Your task to perform on an android device: turn on javascript in the chrome app Image 0: 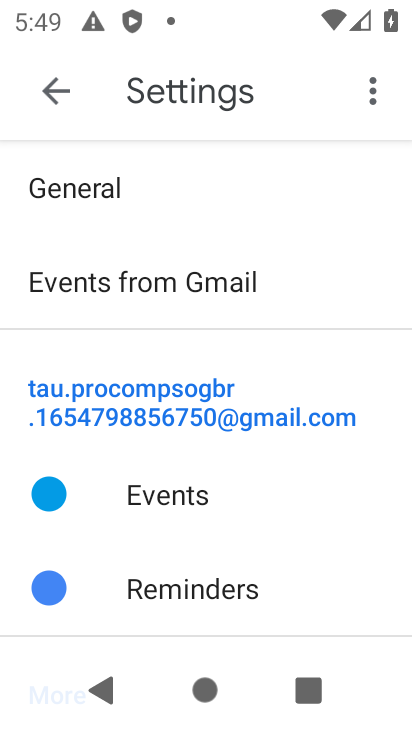
Step 0: press home button
Your task to perform on an android device: turn on javascript in the chrome app Image 1: 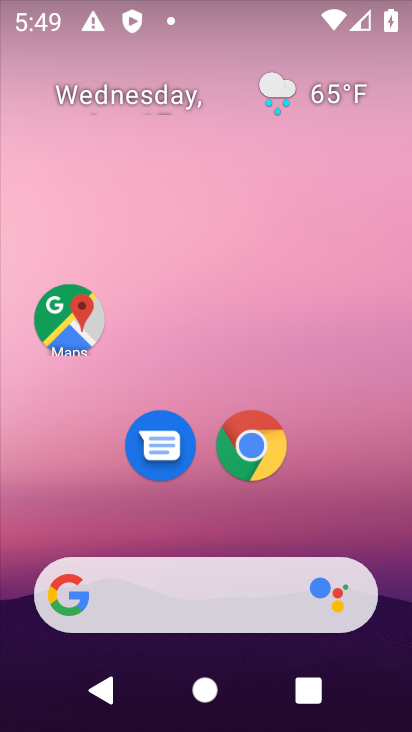
Step 1: click (240, 432)
Your task to perform on an android device: turn on javascript in the chrome app Image 2: 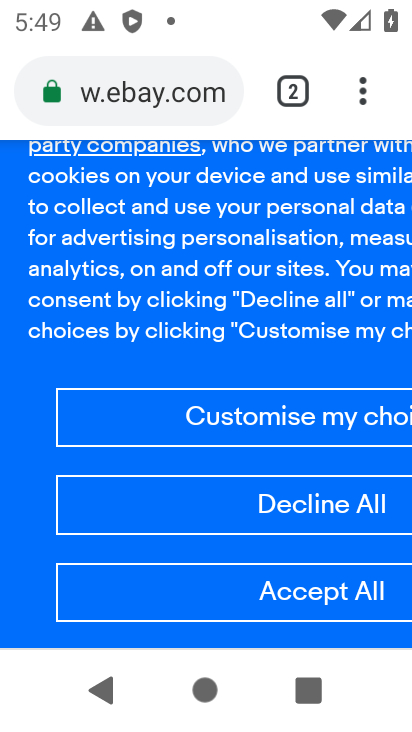
Step 2: click (355, 85)
Your task to perform on an android device: turn on javascript in the chrome app Image 3: 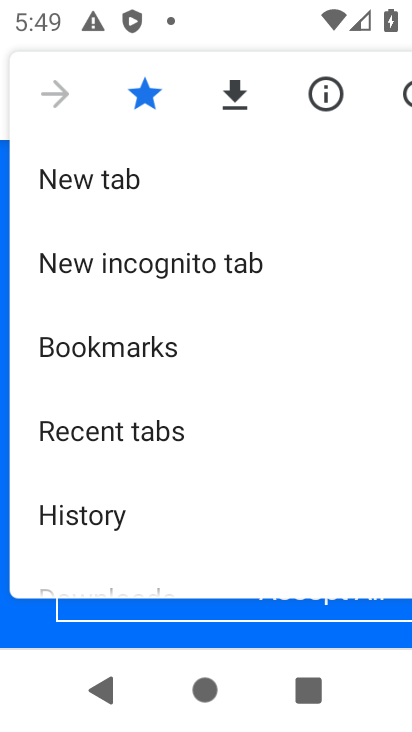
Step 3: drag from (168, 515) to (199, 131)
Your task to perform on an android device: turn on javascript in the chrome app Image 4: 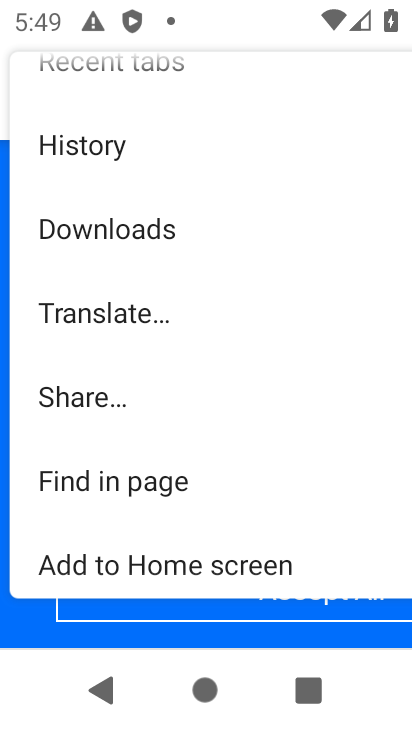
Step 4: drag from (156, 486) to (169, 154)
Your task to perform on an android device: turn on javascript in the chrome app Image 5: 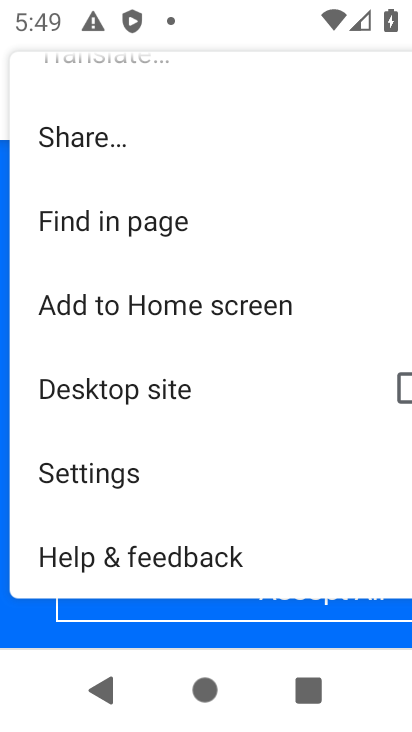
Step 5: click (157, 477)
Your task to perform on an android device: turn on javascript in the chrome app Image 6: 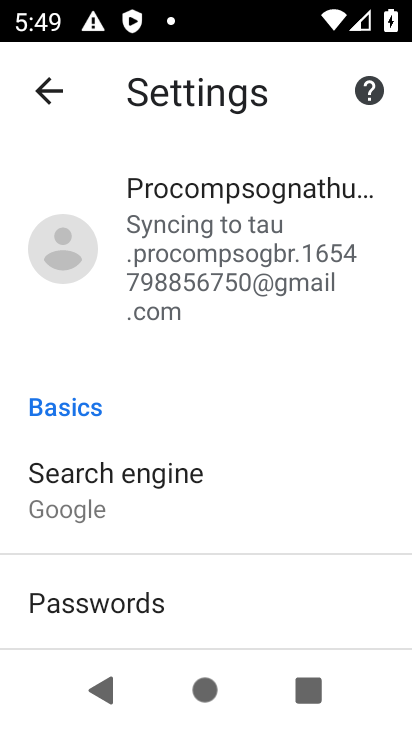
Step 6: drag from (247, 521) to (248, 188)
Your task to perform on an android device: turn on javascript in the chrome app Image 7: 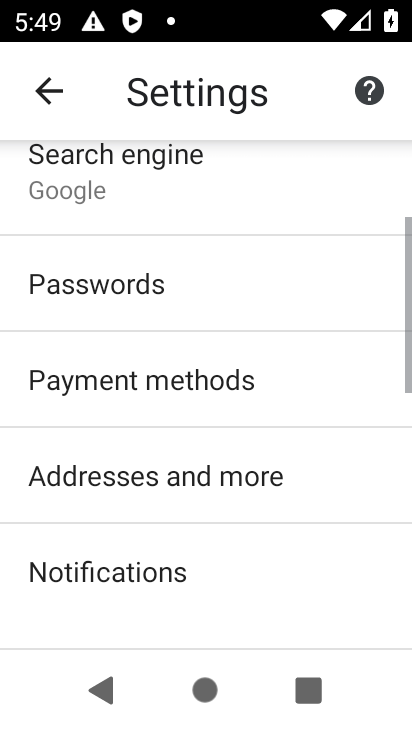
Step 7: drag from (228, 526) to (256, 203)
Your task to perform on an android device: turn on javascript in the chrome app Image 8: 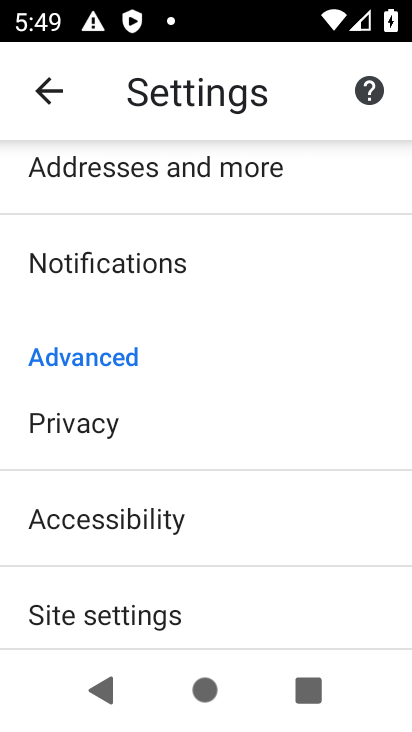
Step 8: drag from (218, 540) to (241, 274)
Your task to perform on an android device: turn on javascript in the chrome app Image 9: 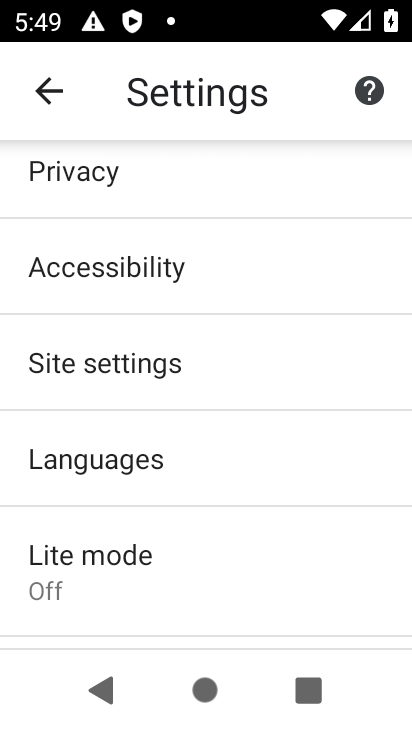
Step 9: click (205, 343)
Your task to perform on an android device: turn on javascript in the chrome app Image 10: 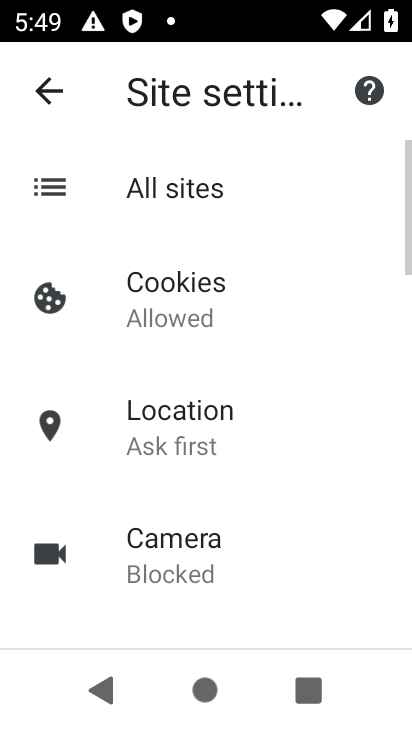
Step 10: drag from (211, 530) to (219, 229)
Your task to perform on an android device: turn on javascript in the chrome app Image 11: 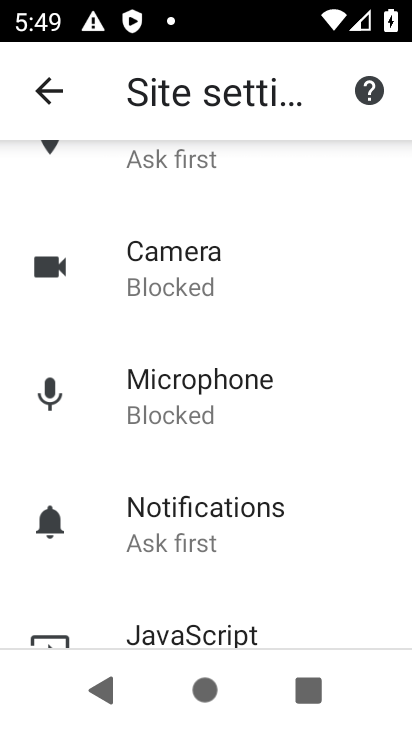
Step 11: drag from (209, 539) to (223, 241)
Your task to perform on an android device: turn on javascript in the chrome app Image 12: 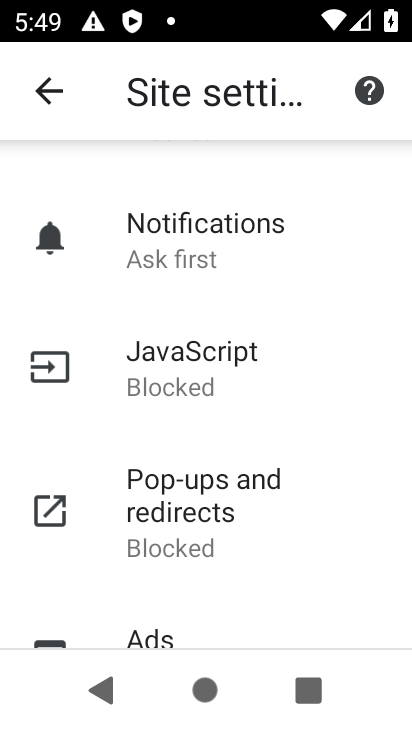
Step 12: click (181, 382)
Your task to perform on an android device: turn on javascript in the chrome app Image 13: 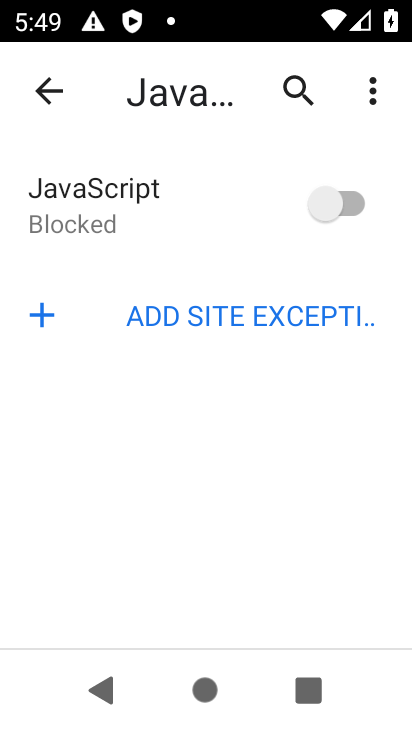
Step 13: click (351, 206)
Your task to perform on an android device: turn on javascript in the chrome app Image 14: 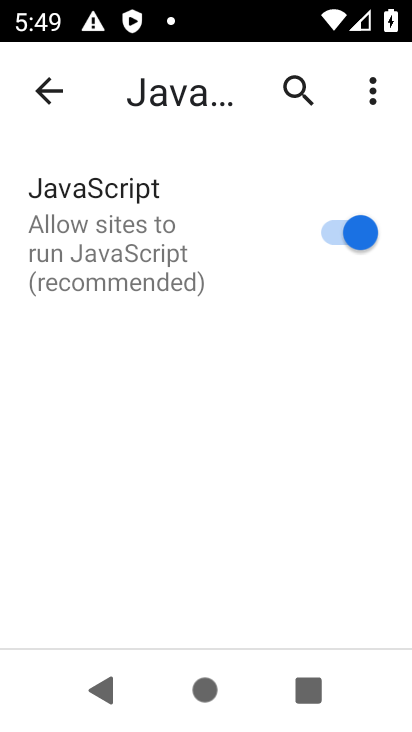
Step 14: task complete